Your task to perform on an android device: Search for "macbook pro 15 inch" on walmart, select the first entry, add it to the cart, then select checkout. Image 0: 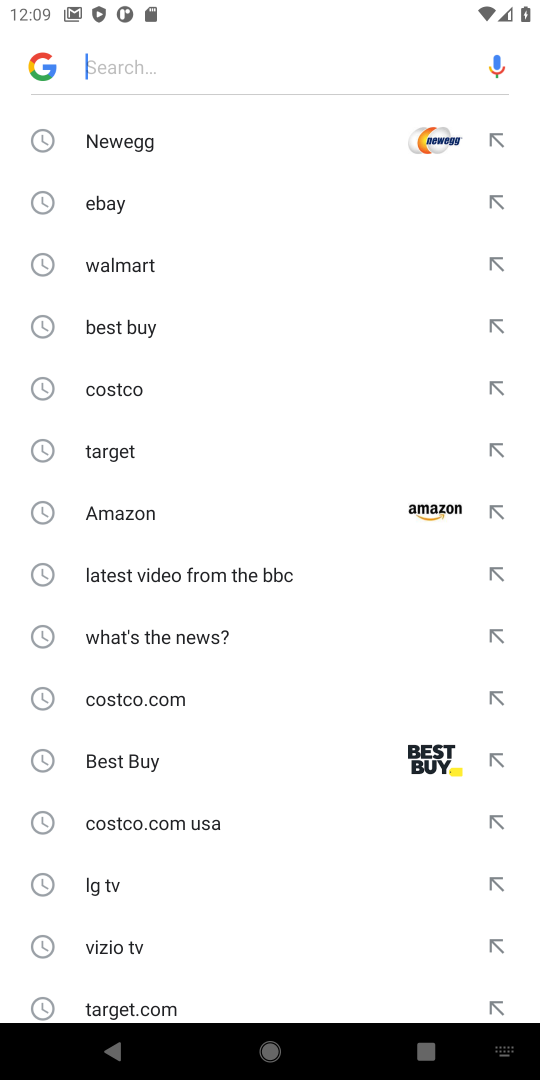
Step 0: press home button
Your task to perform on an android device: Search for "macbook pro 15 inch" on walmart, select the first entry, add it to the cart, then select checkout. Image 1: 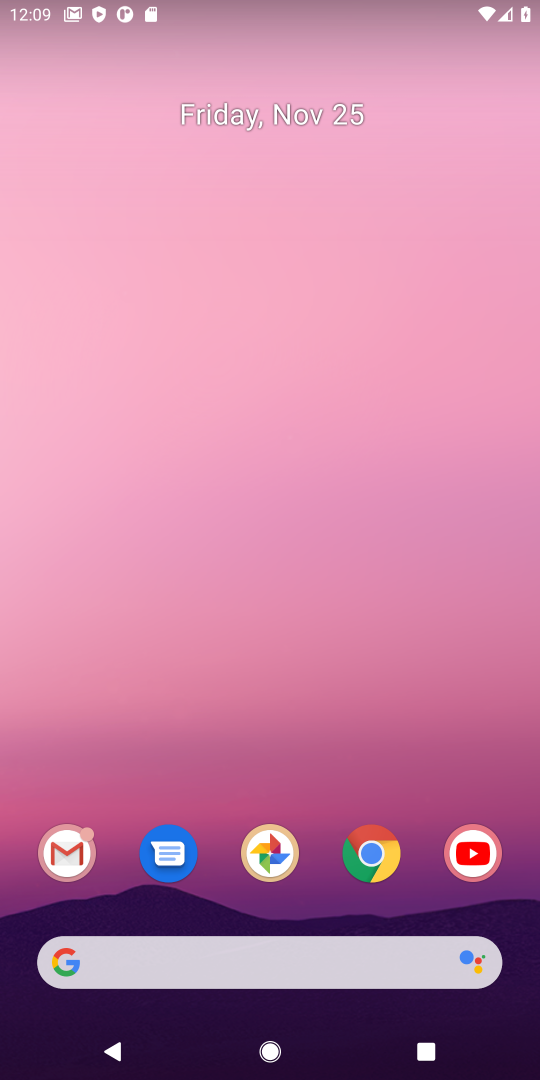
Step 1: click (297, 956)
Your task to perform on an android device: Search for "macbook pro 15 inch" on walmart, select the first entry, add it to the cart, then select checkout. Image 2: 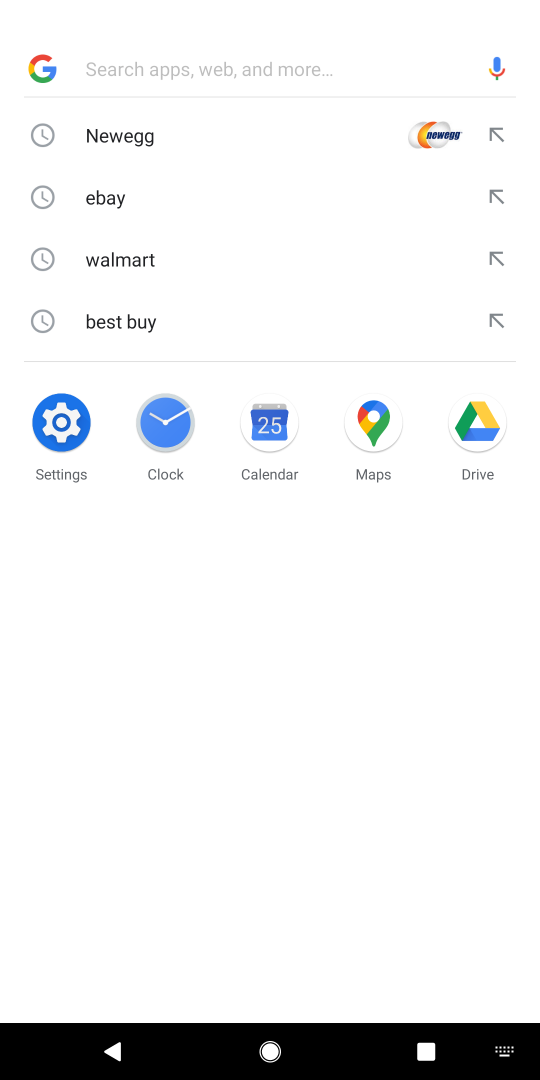
Step 2: click (128, 261)
Your task to perform on an android device: Search for "macbook pro 15 inch" on walmart, select the first entry, add it to the cart, then select checkout. Image 3: 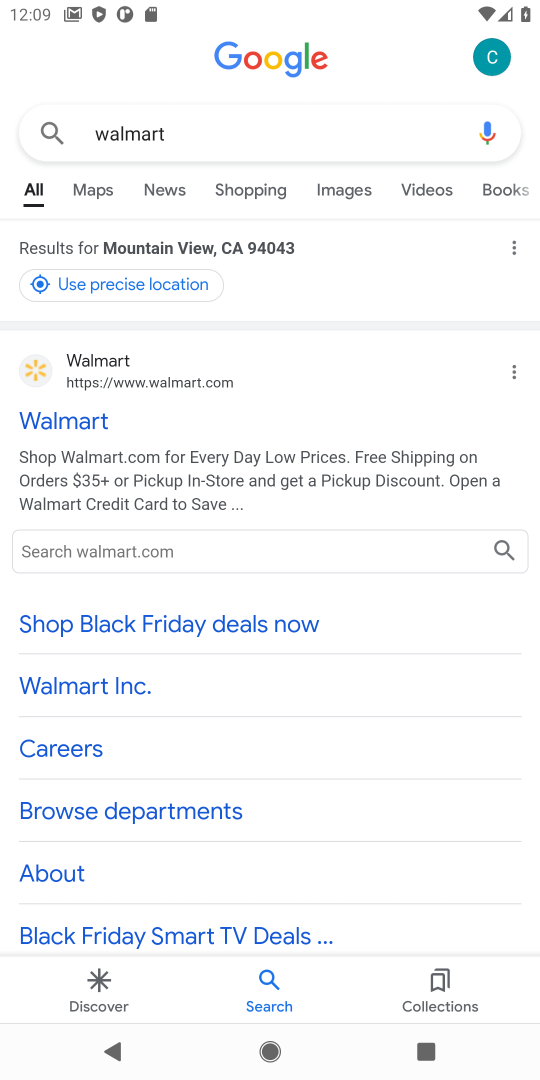
Step 3: click (100, 356)
Your task to perform on an android device: Search for "macbook pro 15 inch" on walmart, select the first entry, add it to the cart, then select checkout. Image 4: 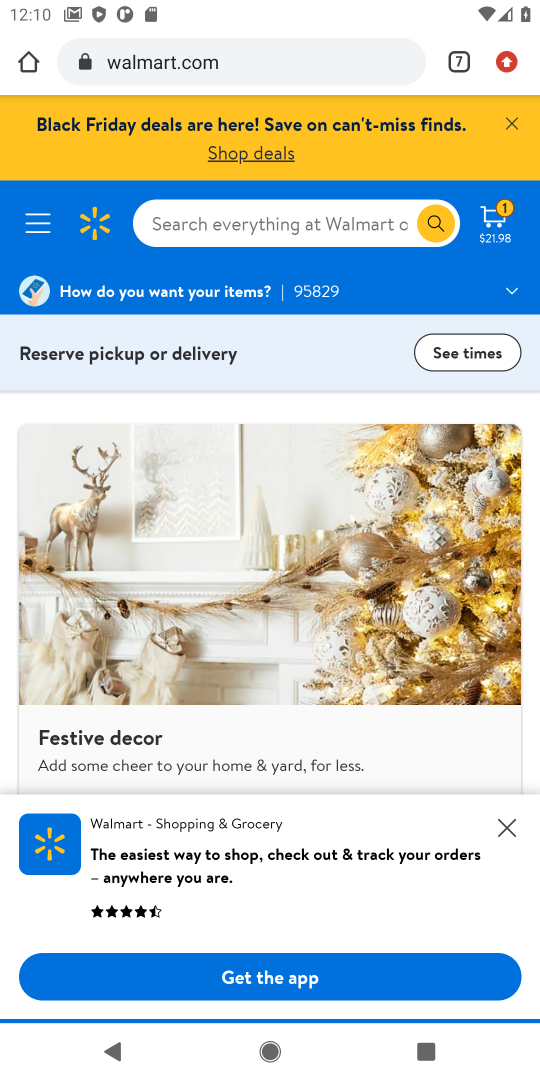
Step 4: click (504, 834)
Your task to perform on an android device: Search for "macbook pro 15 inch" on walmart, select the first entry, add it to the cart, then select checkout. Image 5: 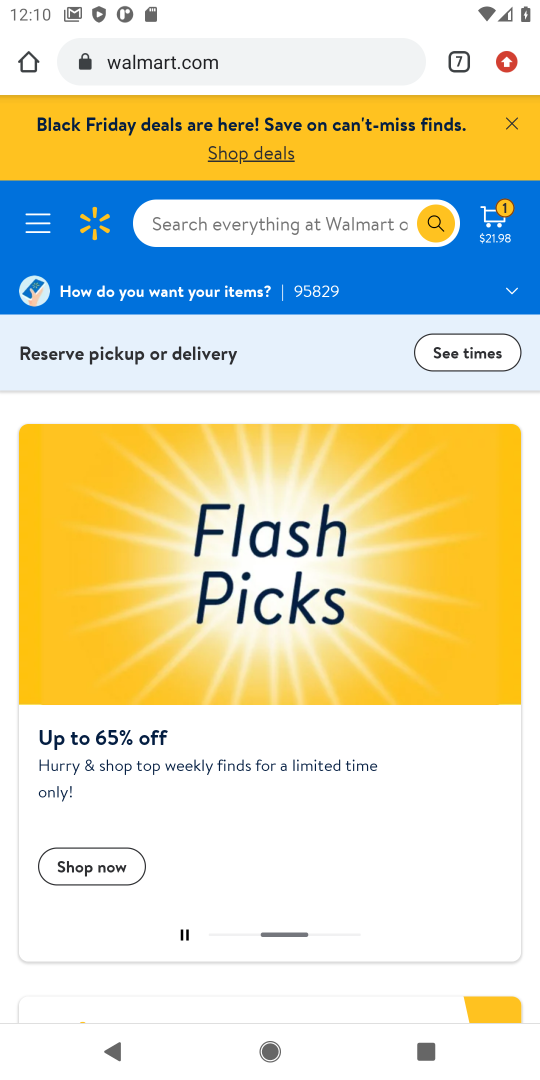
Step 5: click (501, 125)
Your task to perform on an android device: Search for "macbook pro 15 inch" on walmart, select the first entry, add it to the cart, then select checkout. Image 6: 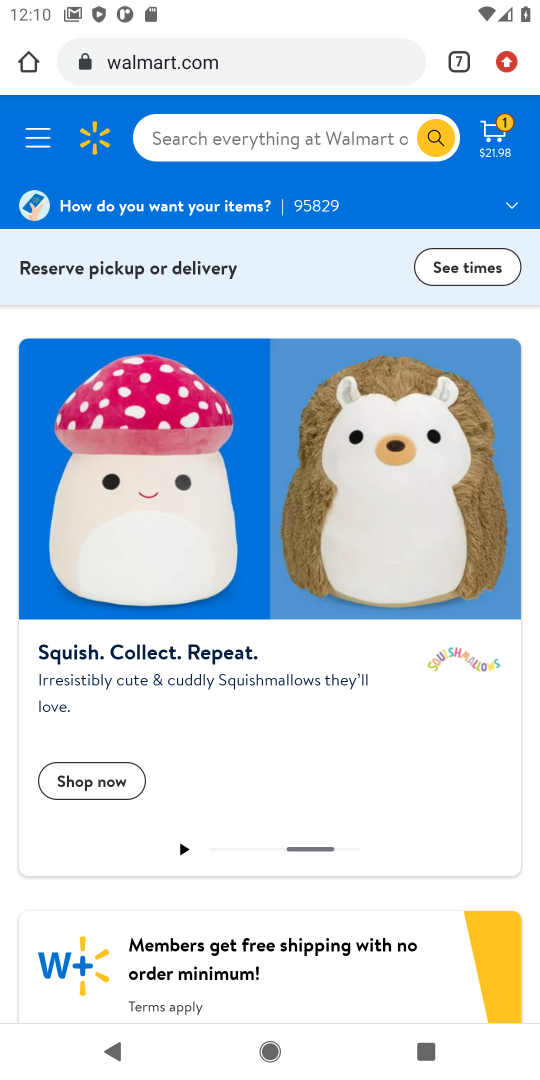
Step 6: click (267, 142)
Your task to perform on an android device: Search for "macbook pro 15 inch" on walmart, select the first entry, add it to the cart, then select checkout. Image 7: 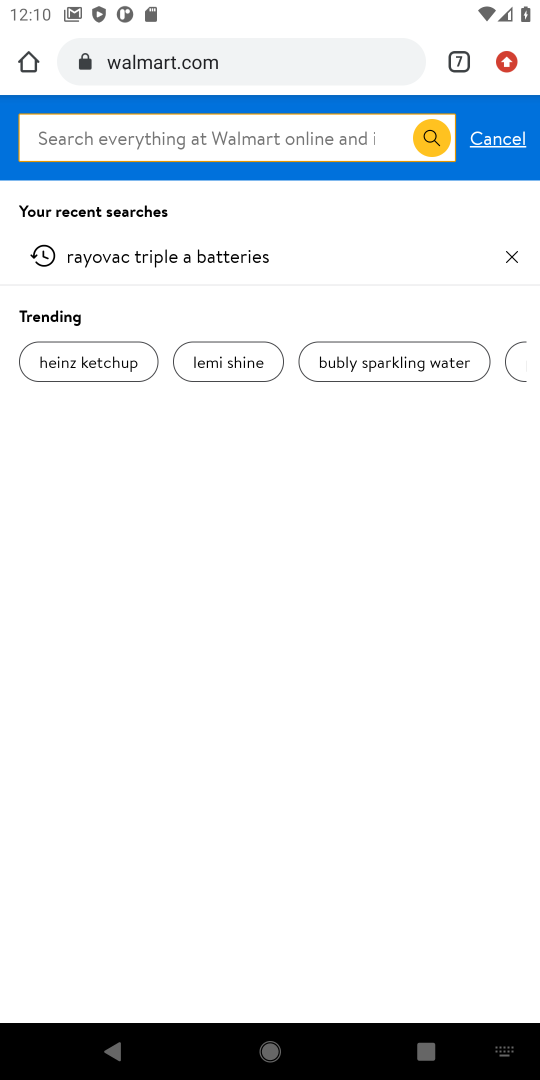
Step 7: type "macbook pro 15"
Your task to perform on an android device: Search for "macbook pro 15 inch" on walmart, select the first entry, add it to the cart, then select checkout. Image 8: 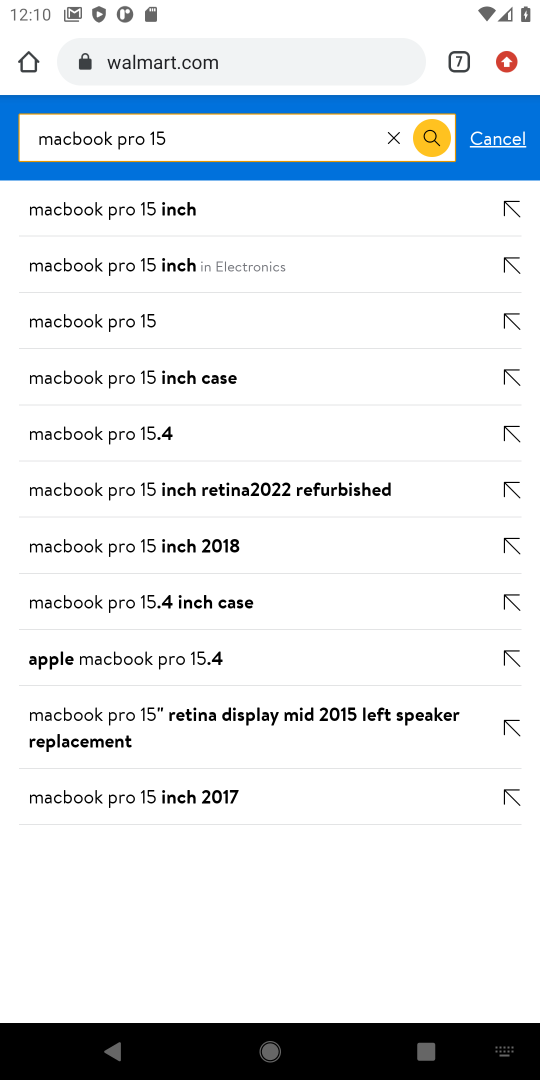
Step 8: click (208, 209)
Your task to perform on an android device: Search for "macbook pro 15 inch" on walmart, select the first entry, add it to the cart, then select checkout. Image 9: 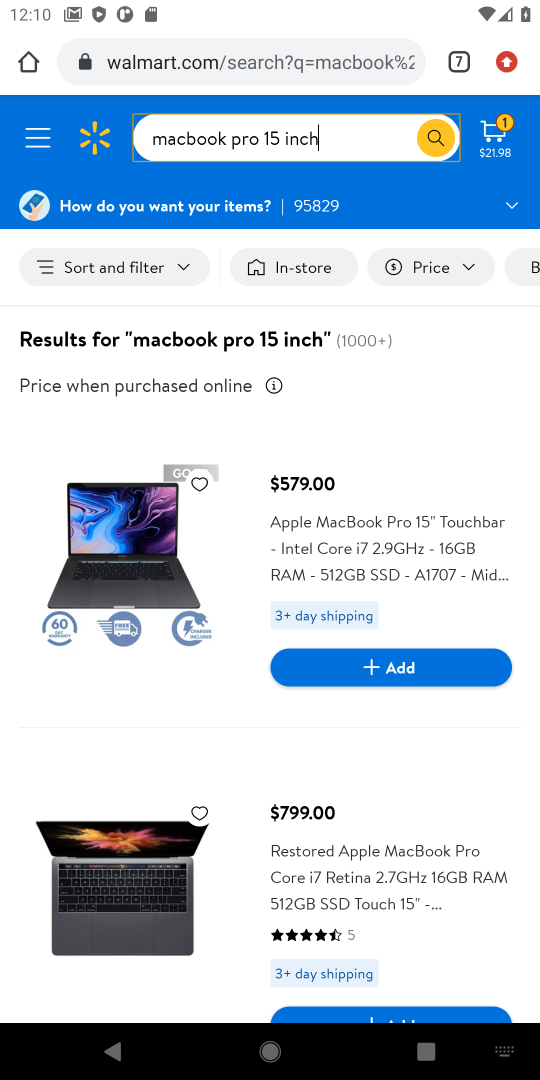
Step 9: click (377, 673)
Your task to perform on an android device: Search for "macbook pro 15 inch" on walmart, select the first entry, add it to the cart, then select checkout. Image 10: 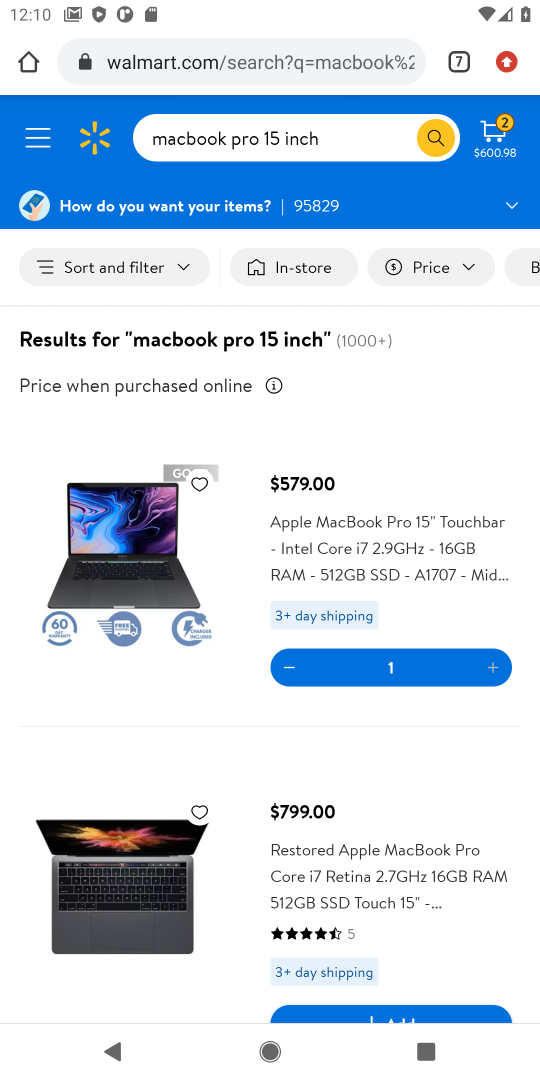
Step 10: task complete